Your task to perform on an android device: clear history in the chrome app Image 0: 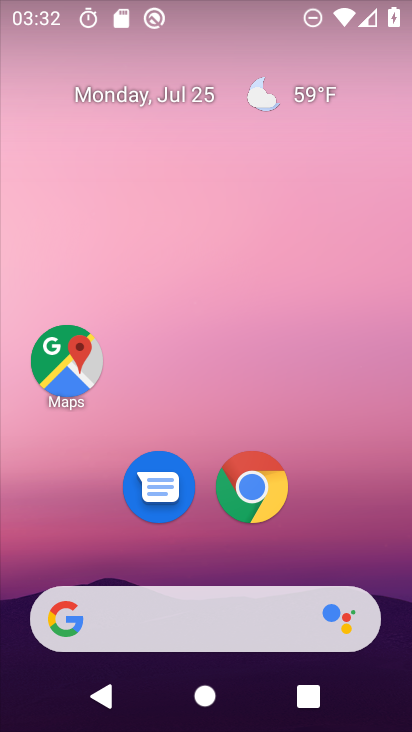
Step 0: click (267, 490)
Your task to perform on an android device: clear history in the chrome app Image 1: 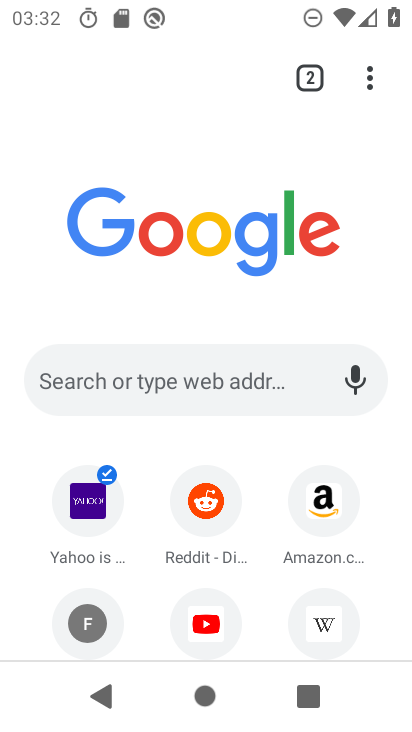
Step 1: drag from (368, 92) to (132, 448)
Your task to perform on an android device: clear history in the chrome app Image 2: 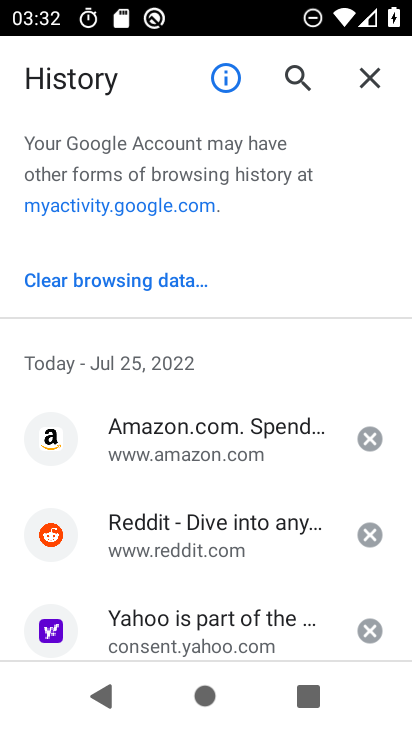
Step 2: click (113, 273)
Your task to perform on an android device: clear history in the chrome app Image 3: 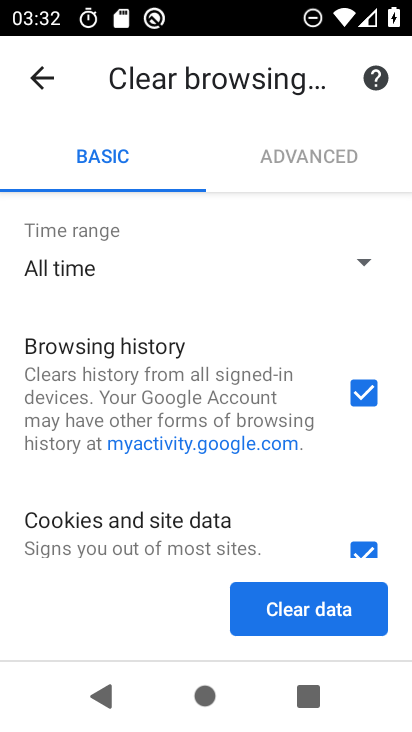
Step 3: click (35, 80)
Your task to perform on an android device: clear history in the chrome app Image 4: 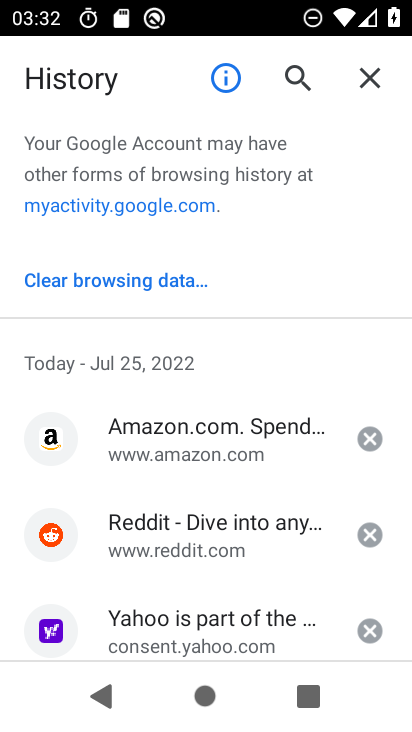
Step 4: click (81, 289)
Your task to perform on an android device: clear history in the chrome app Image 5: 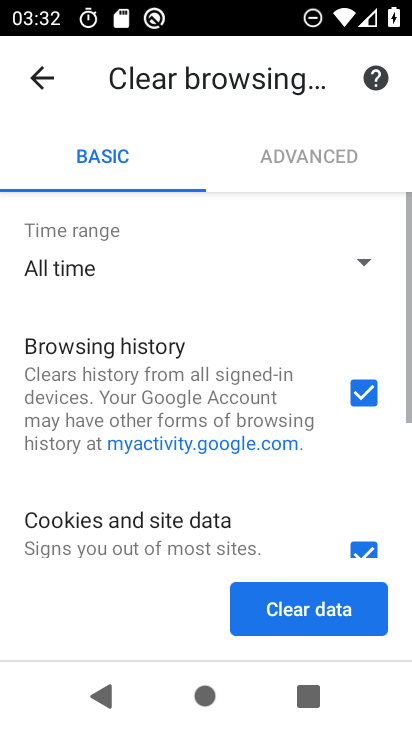
Step 5: click (303, 608)
Your task to perform on an android device: clear history in the chrome app Image 6: 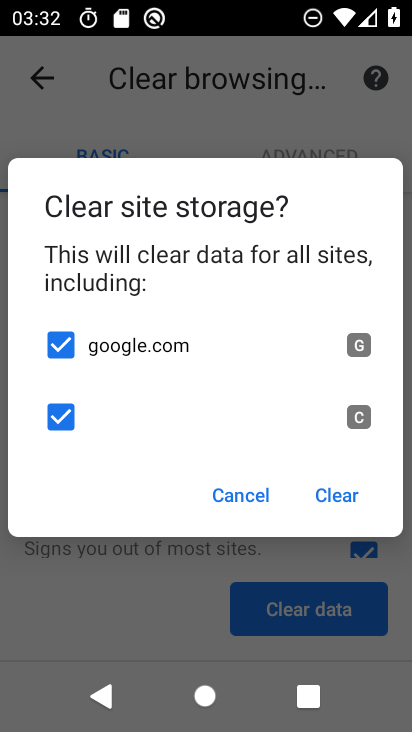
Step 6: click (337, 497)
Your task to perform on an android device: clear history in the chrome app Image 7: 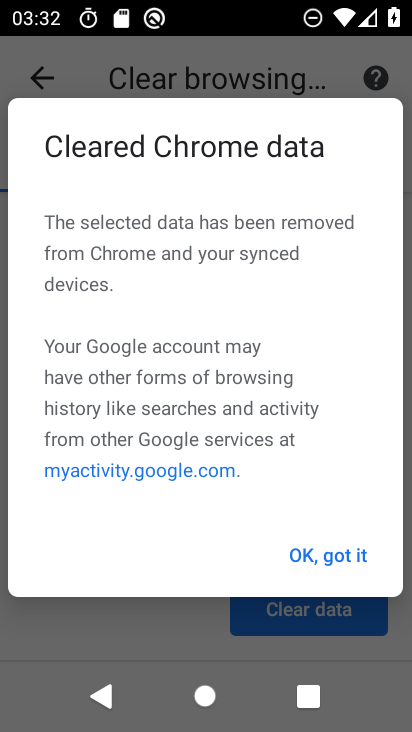
Step 7: task complete